Your task to perform on an android device: Open notification settings Image 0: 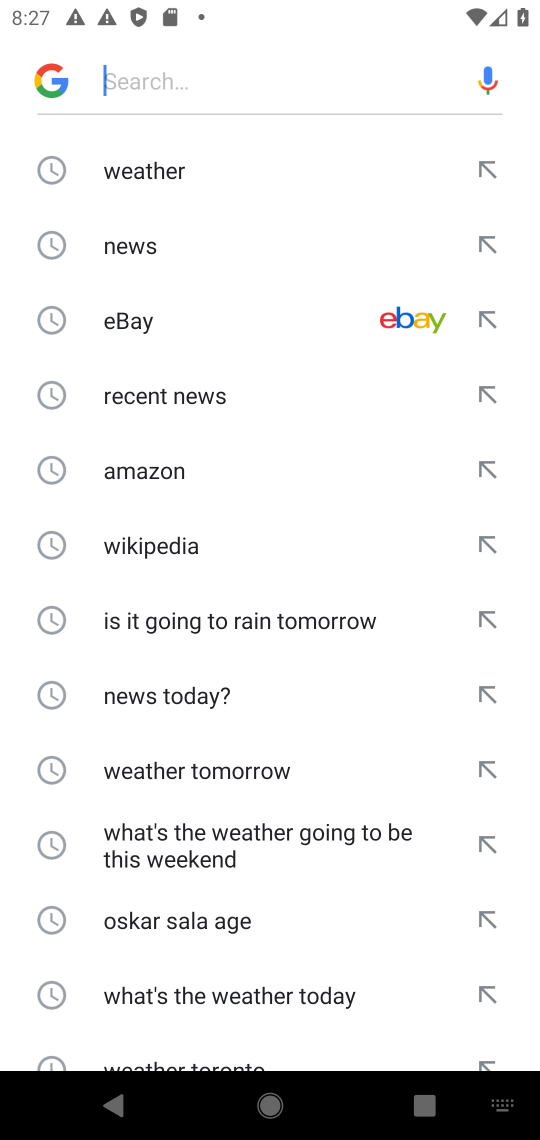
Step 0: press home button
Your task to perform on an android device: Open notification settings Image 1: 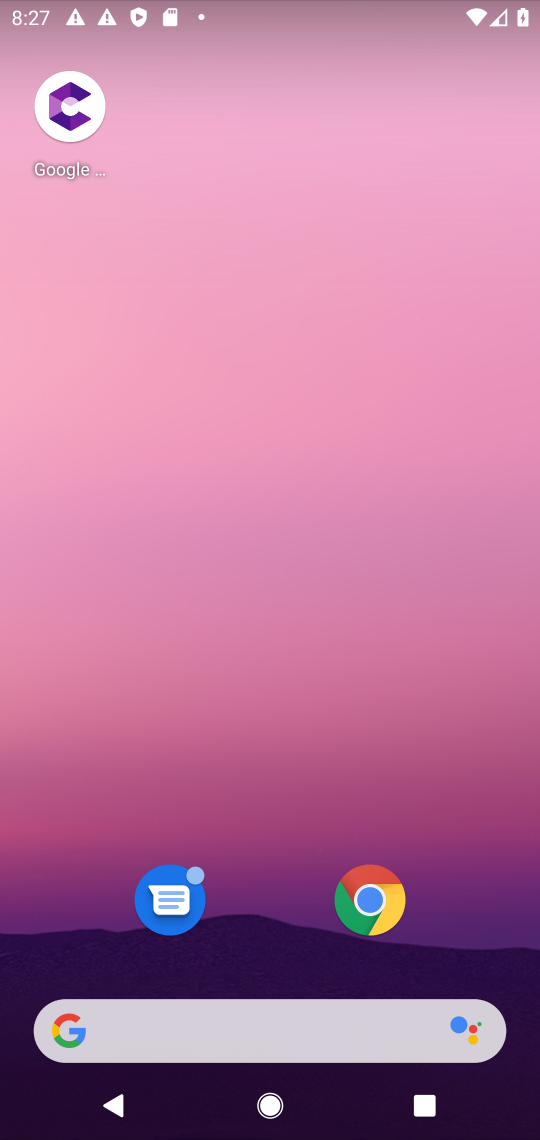
Step 1: drag from (286, 914) to (312, 44)
Your task to perform on an android device: Open notification settings Image 2: 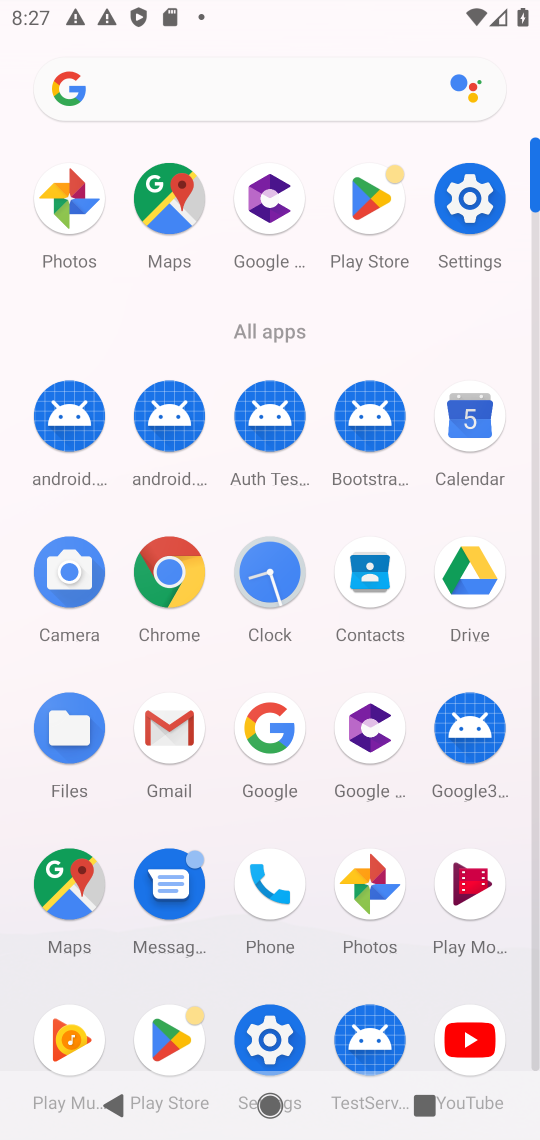
Step 2: click (471, 187)
Your task to perform on an android device: Open notification settings Image 3: 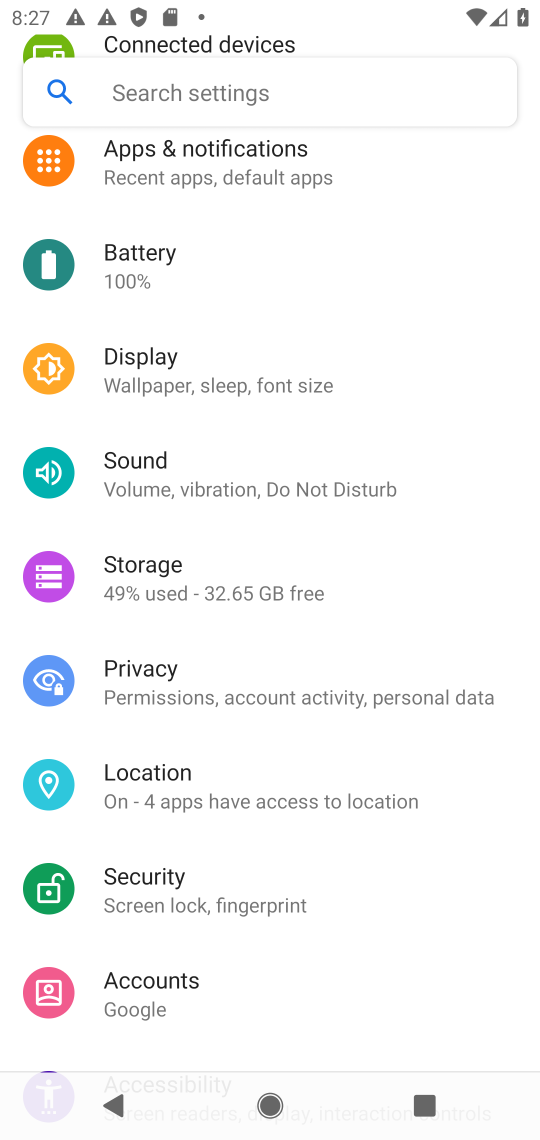
Step 3: click (201, 144)
Your task to perform on an android device: Open notification settings Image 4: 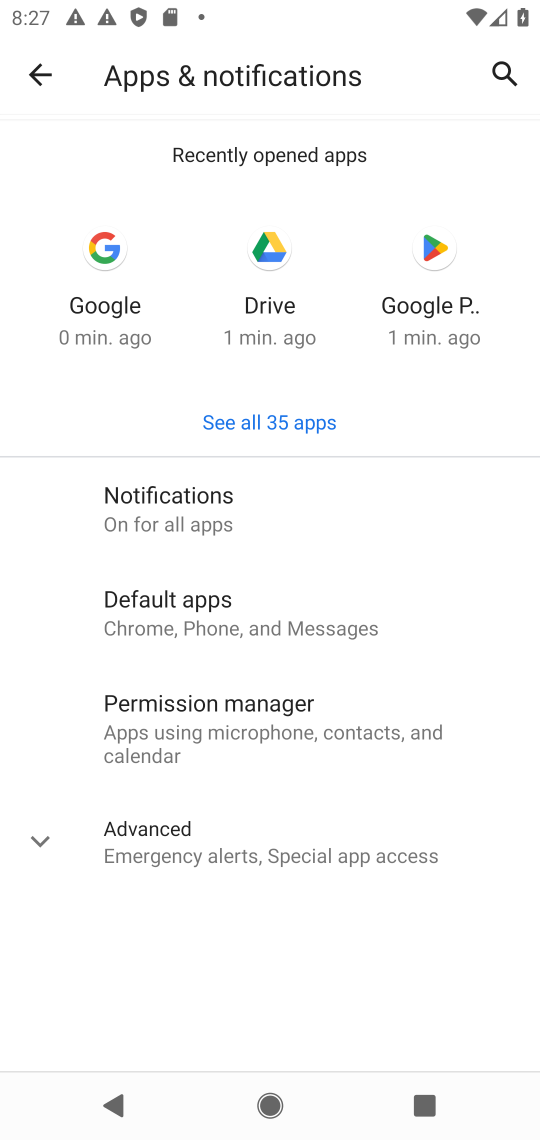
Step 4: click (223, 502)
Your task to perform on an android device: Open notification settings Image 5: 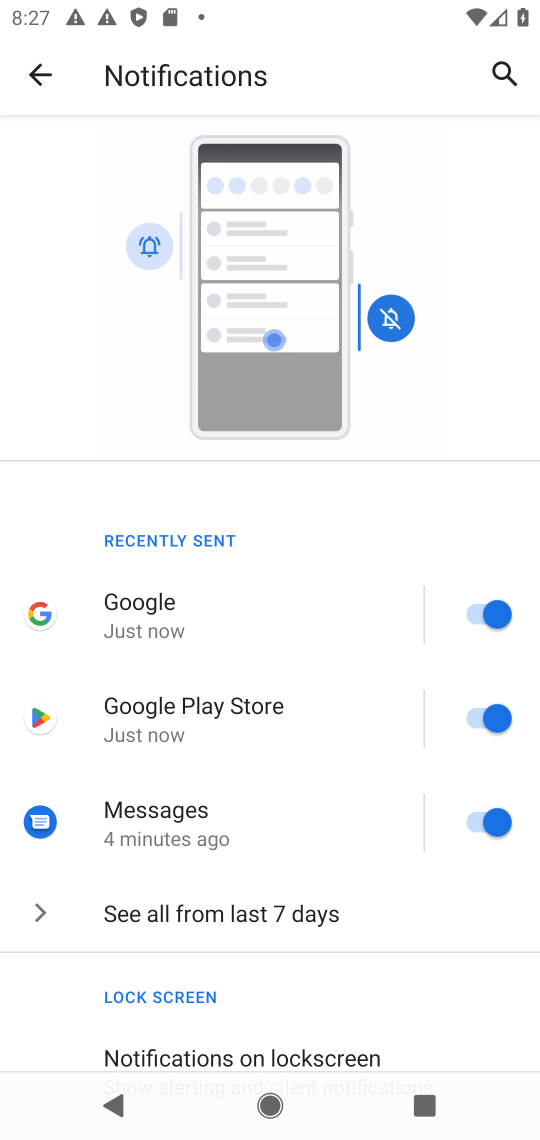
Step 5: task complete